Your task to perform on an android device: Search for Italian restaurants on Maps Image 0: 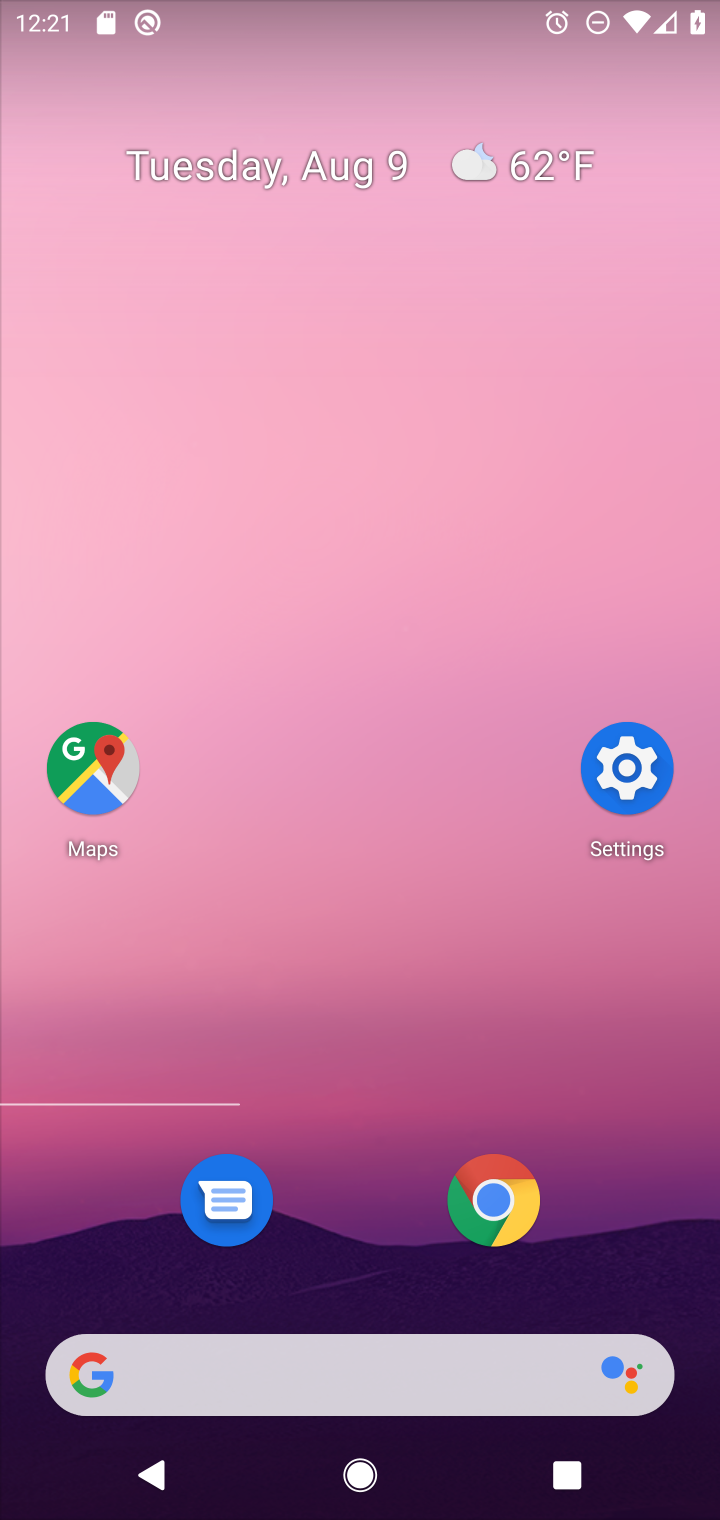
Step 0: press home button
Your task to perform on an android device: Search for Italian restaurants on Maps Image 1: 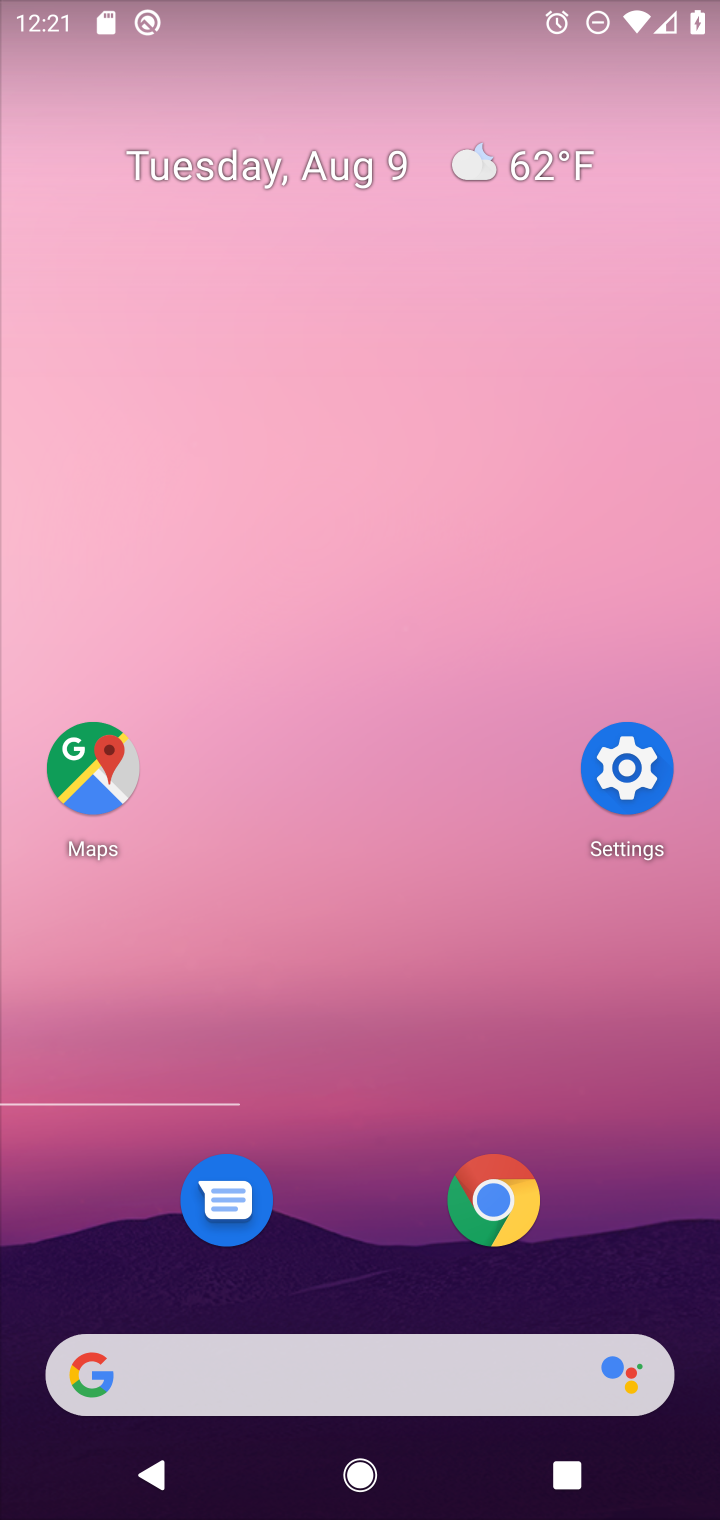
Step 1: click (83, 780)
Your task to perform on an android device: Search for Italian restaurants on Maps Image 2: 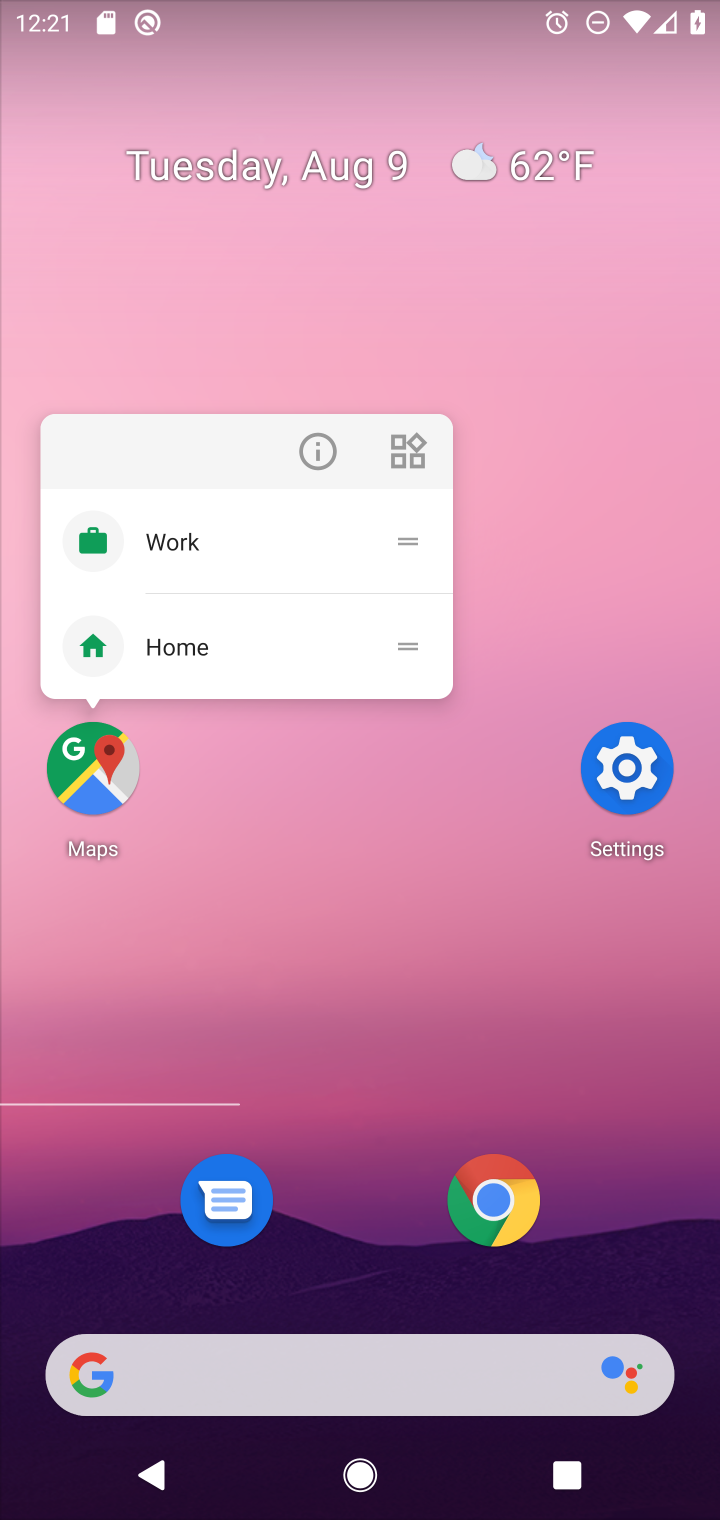
Step 2: click (83, 780)
Your task to perform on an android device: Search for Italian restaurants on Maps Image 3: 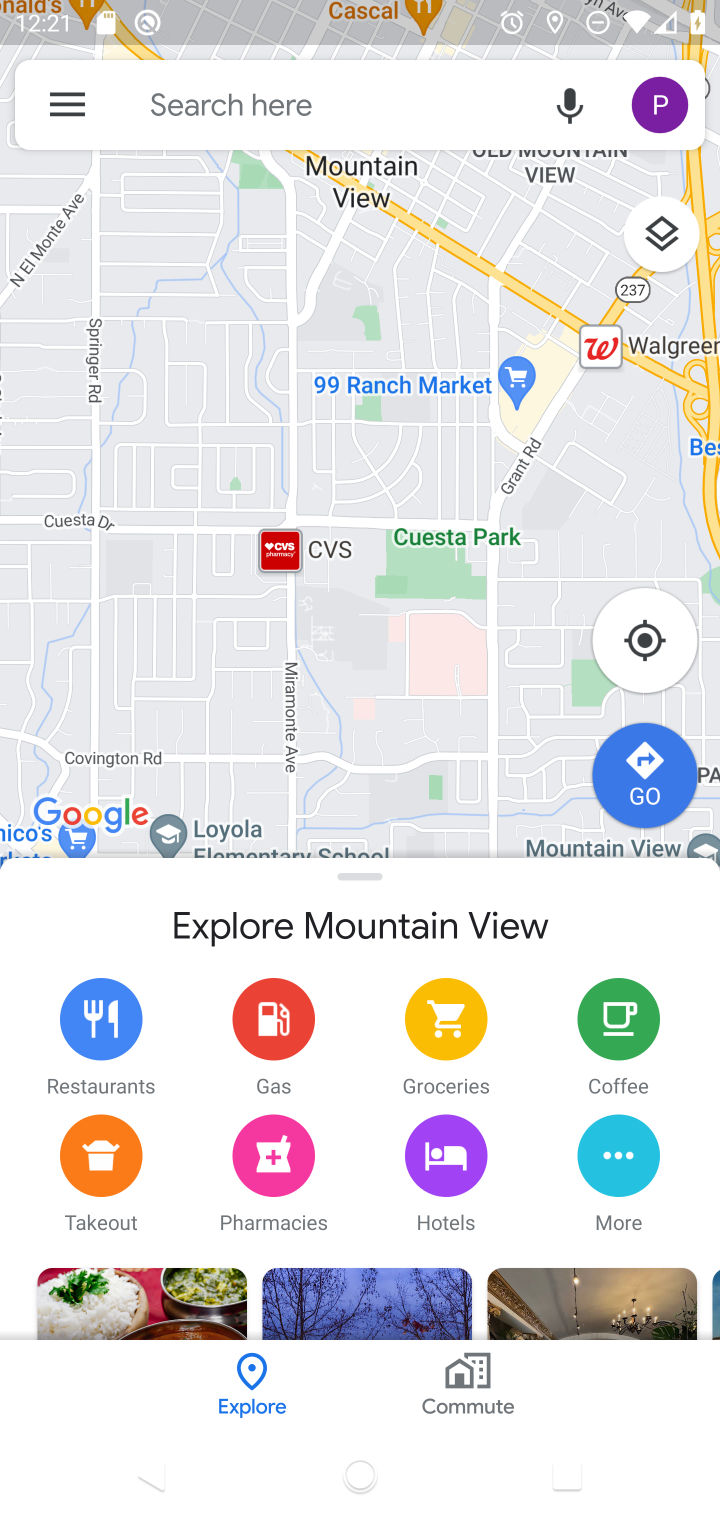
Step 3: click (249, 91)
Your task to perform on an android device: Search for Italian restaurants on Maps Image 4: 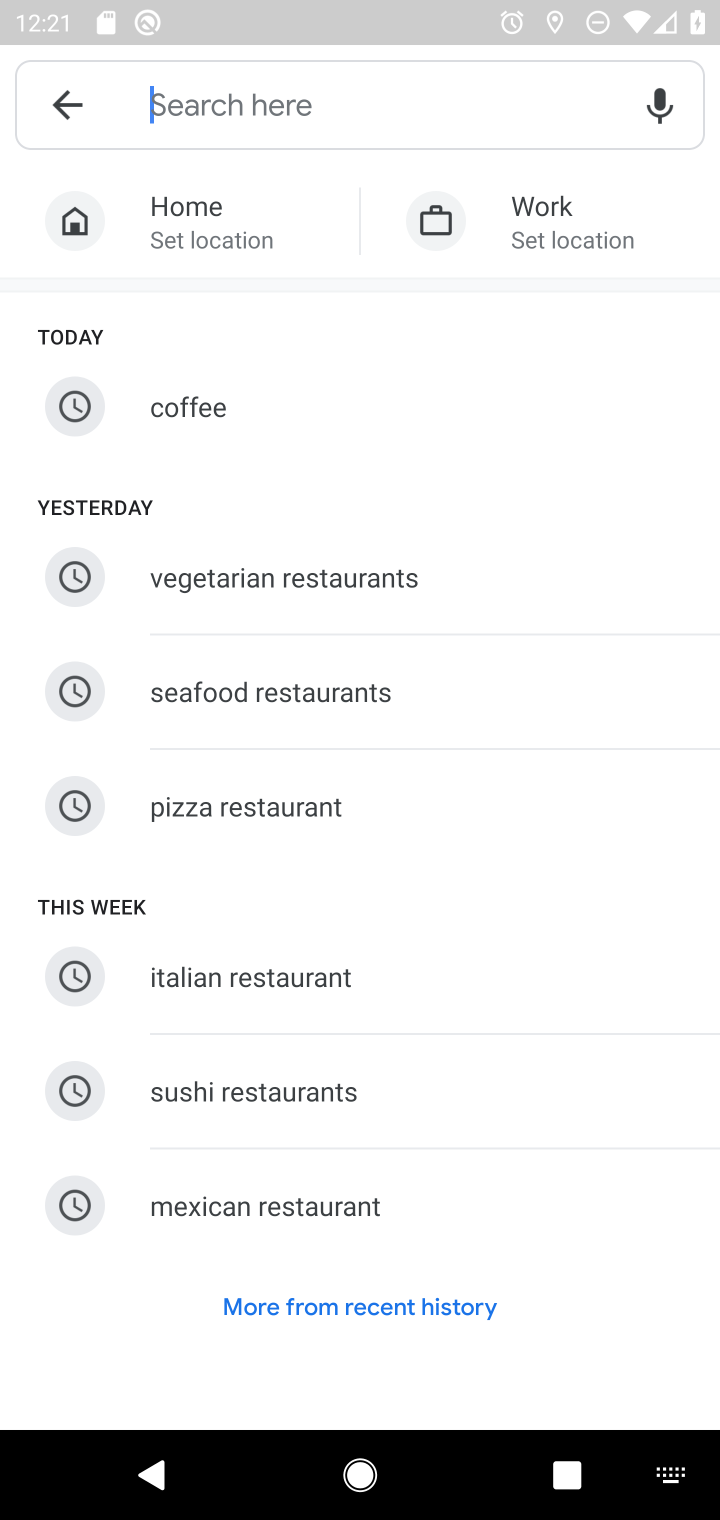
Step 4: click (263, 977)
Your task to perform on an android device: Search for Italian restaurants on Maps Image 5: 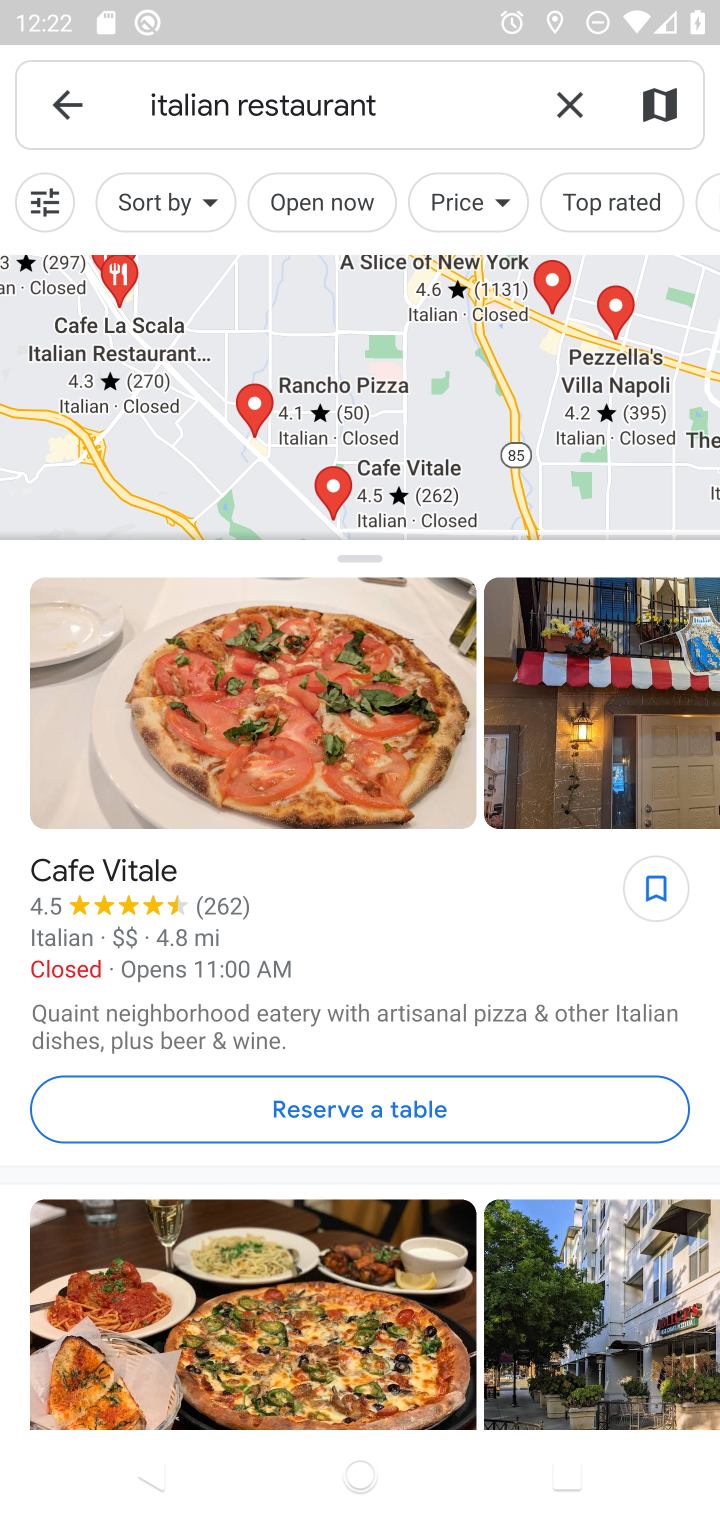
Step 5: task complete